Your task to perform on an android device: turn pop-ups on in chrome Image 0: 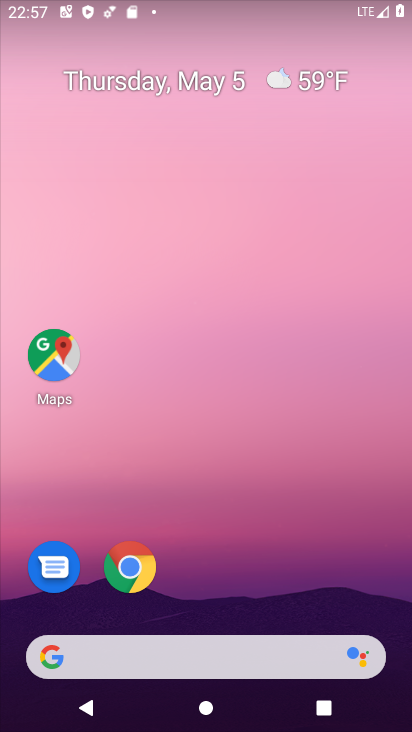
Step 0: click (128, 571)
Your task to perform on an android device: turn pop-ups on in chrome Image 1: 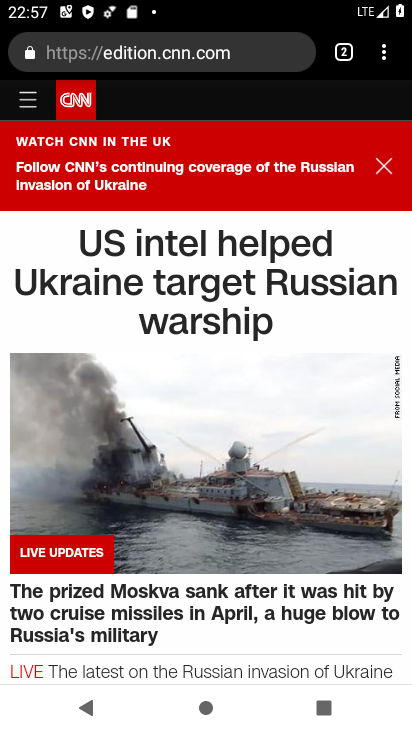
Step 1: drag from (382, 47) to (211, 585)
Your task to perform on an android device: turn pop-ups on in chrome Image 2: 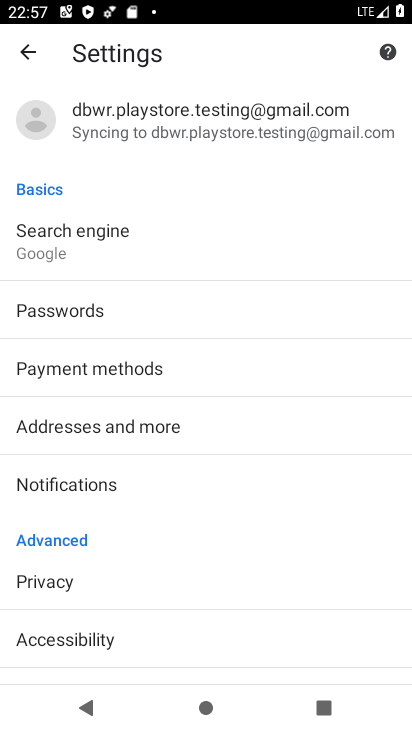
Step 2: drag from (138, 618) to (227, 163)
Your task to perform on an android device: turn pop-ups on in chrome Image 3: 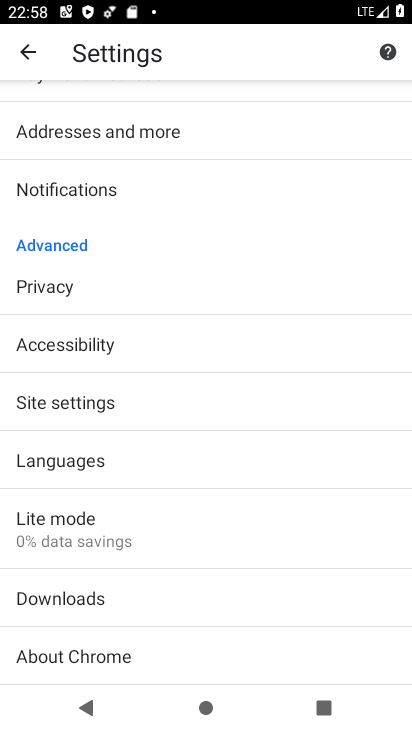
Step 3: click (101, 666)
Your task to perform on an android device: turn pop-ups on in chrome Image 4: 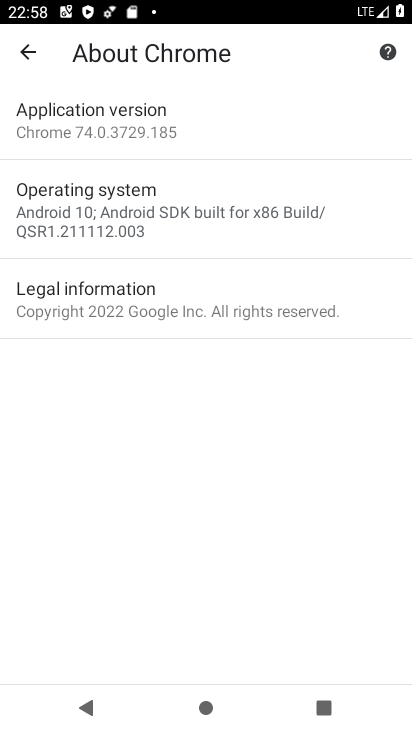
Step 4: click (26, 47)
Your task to perform on an android device: turn pop-ups on in chrome Image 5: 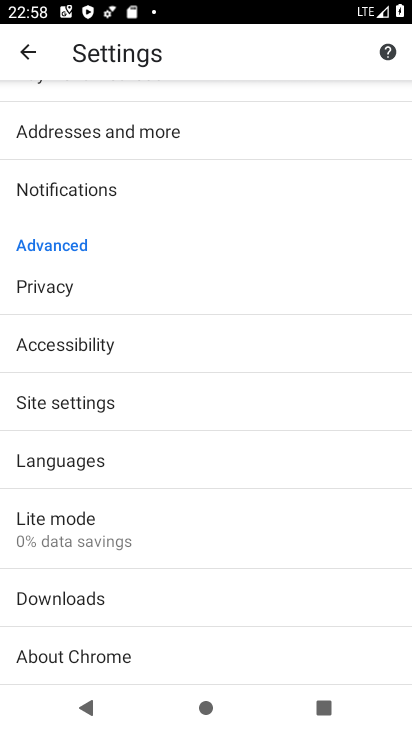
Step 5: click (90, 407)
Your task to perform on an android device: turn pop-ups on in chrome Image 6: 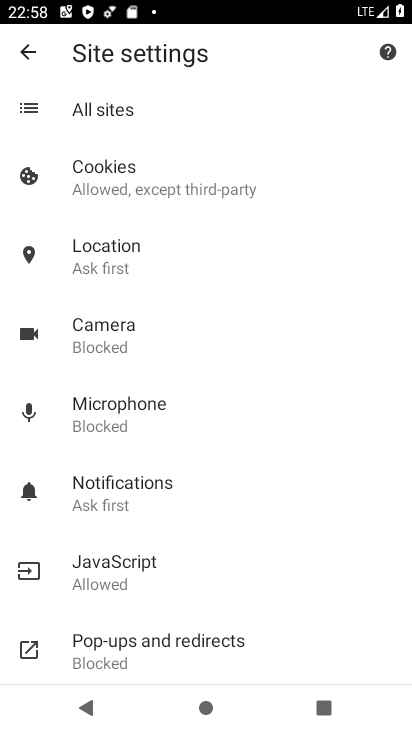
Step 6: click (143, 635)
Your task to perform on an android device: turn pop-ups on in chrome Image 7: 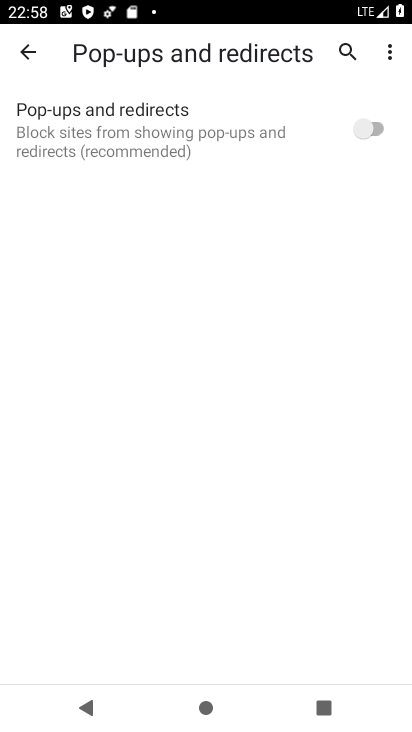
Step 7: click (368, 117)
Your task to perform on an android device: turn pop-ups on in chrome Image 8: 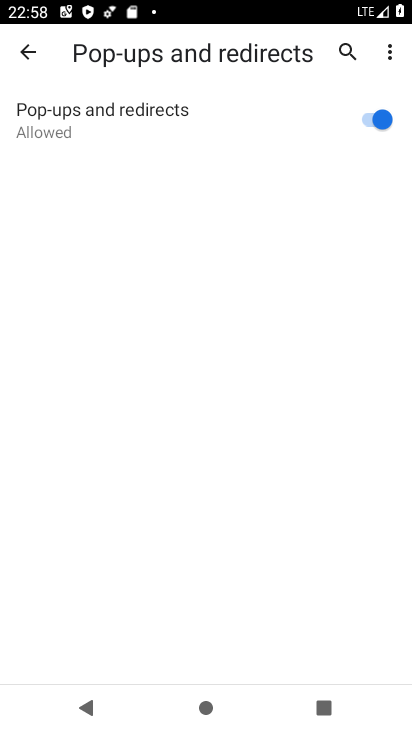
Step 8: task complete